Your task to perform on an android device: Search for the best rated kitchen reno kits on Lowes.com Image 0: 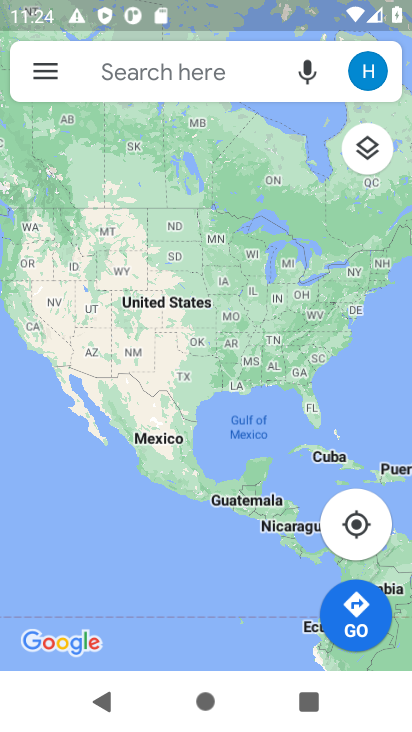
Step 0: press home button
Your task to perform on an android device: Search for the best rated kitchen reno kits on Lowes.com Image 1: 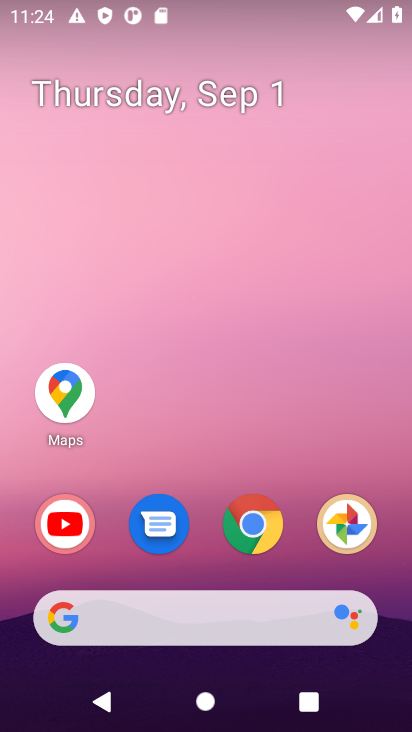
Step 1: click (253, 519)
Your task to perform on an android device: Search for the best rated kitchen reno kits on Lowes.com Image 2: 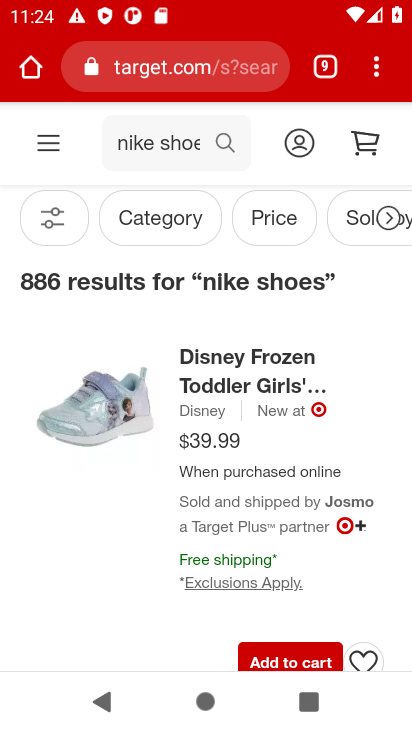
Step 2: click (325, 68)
Your task to perform on an android device: Search for the best rated kitchen reno kits on Lowes.com Image 3: 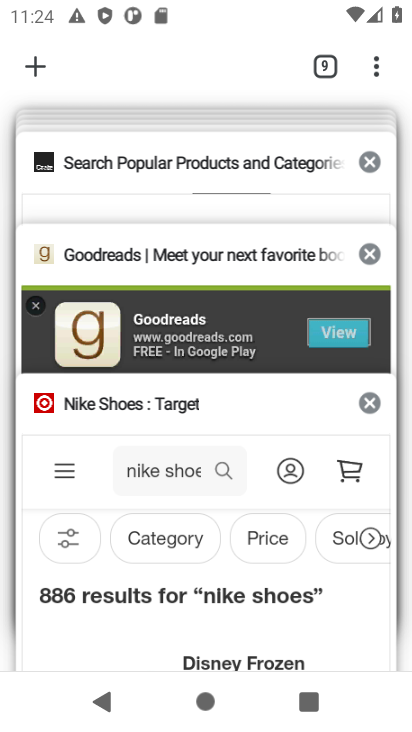
Step 3: click (34, 65)
Your task to perform on an android device: Search for the best rated kitchen reno kits on Lowes.com Image 4: 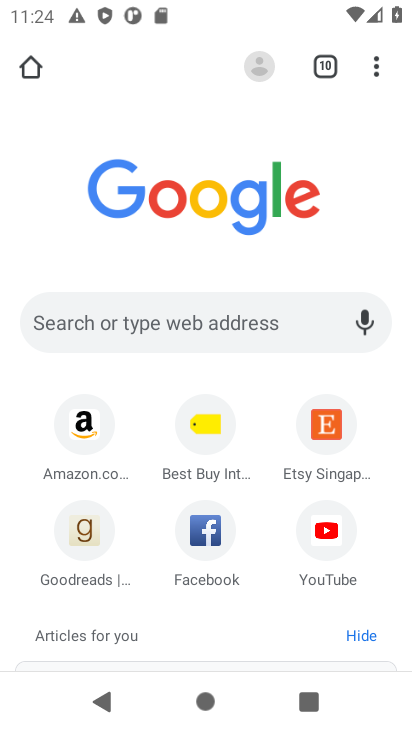
Step 4: click (173, 320)
Your task to perform on an android device: Search for the best rated kitchen reno kits on Lowes.com Image 5: 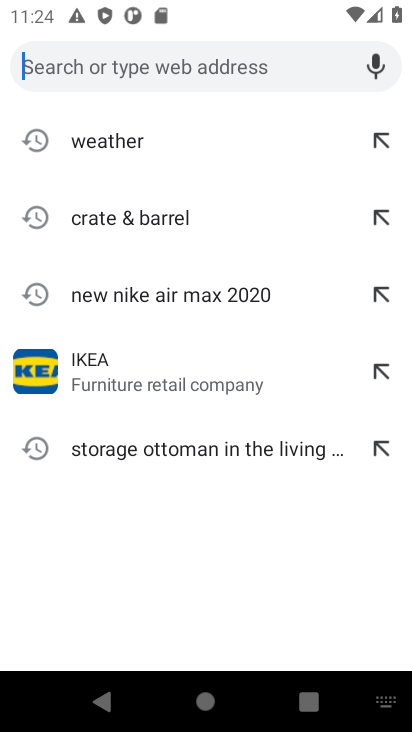
Step 5: type "Lowes.com"
Your task to perform on an android device: Search for the best rated kitchen reno kits on Lowes.com Image 6: 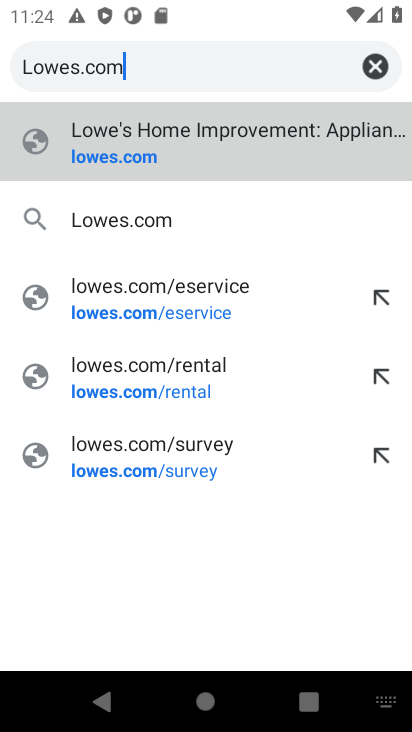
Step 6: click (66, 141)
Your task to perform on an android device: Search for the best rated kitchen reno kits on Lowes.com Image 7: 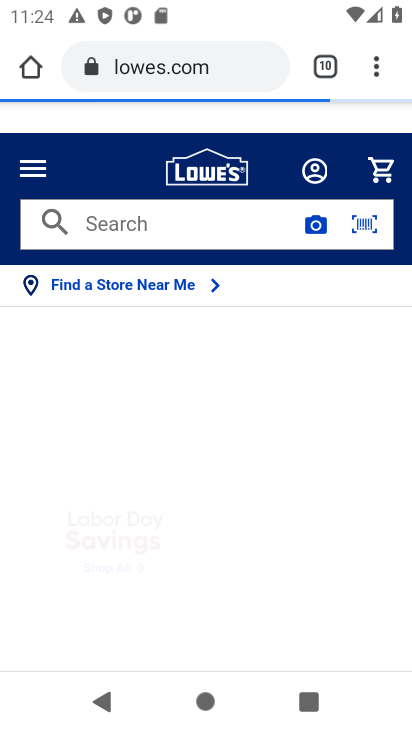
Step 7: click (99, 228)
Your task to perform on an android device: Search for the best rated kitchen reno kits on Lowes.com Image 8: 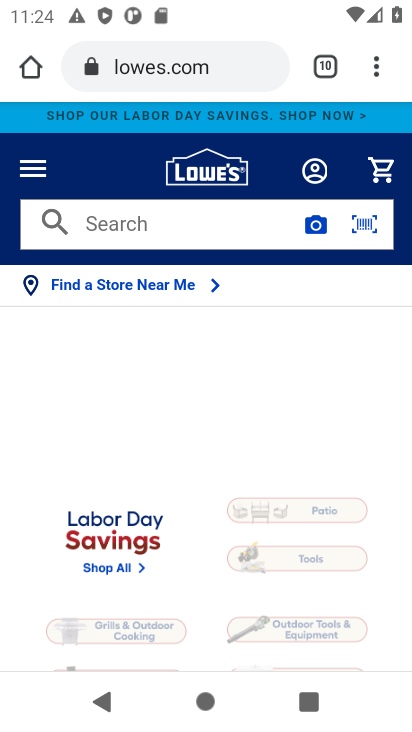
Step 8: click (99, 228)
Your task to perform on an android device: Search for the best rated kitchen reno kits on Lowes.com Image 9: 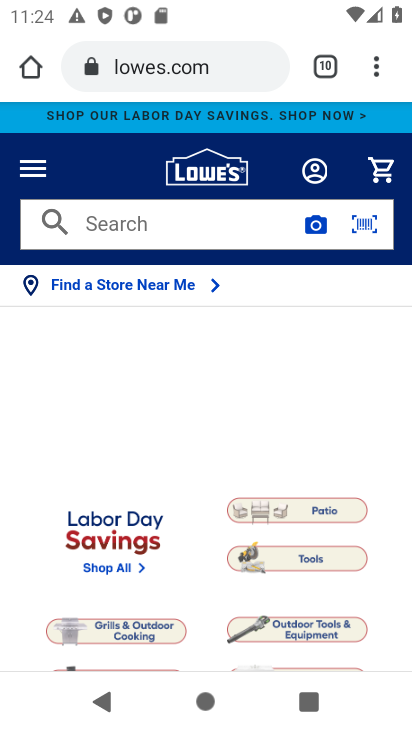
Step 9: click (99, 228)
Your task to perform on an android device: Search for the best rated kitchen reno kits on Lowes.com Image 10: 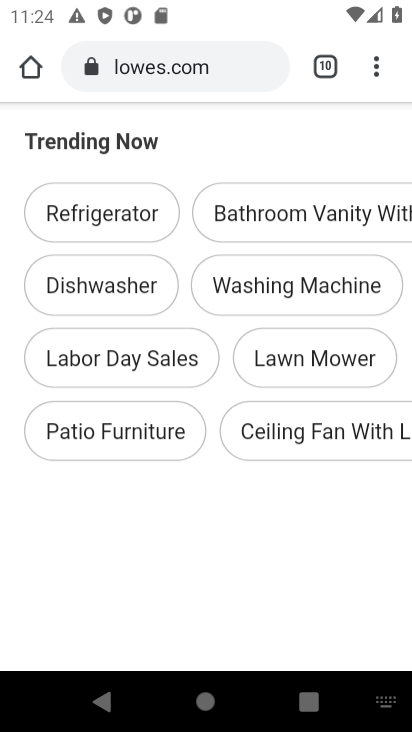
Step 10: press back button
Your task to perform on an android device: Search for the best rated kitchen reno kits on Lowes.com Image 11: 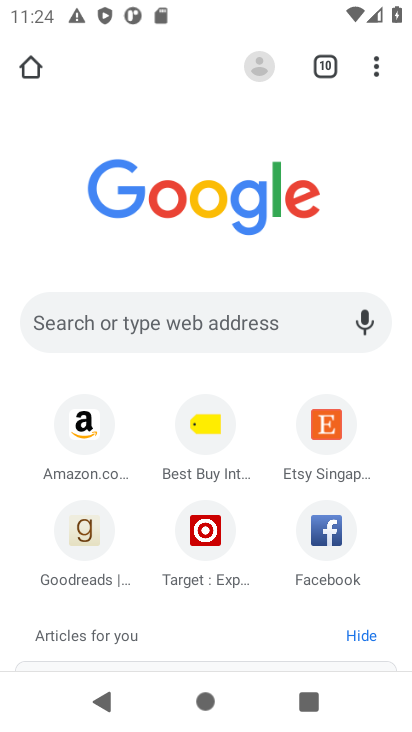
Step 11: click (206, 334)
Your task to perform on an android device: Search for the best rated kitchen reno kits on Lowes.com Image 12: 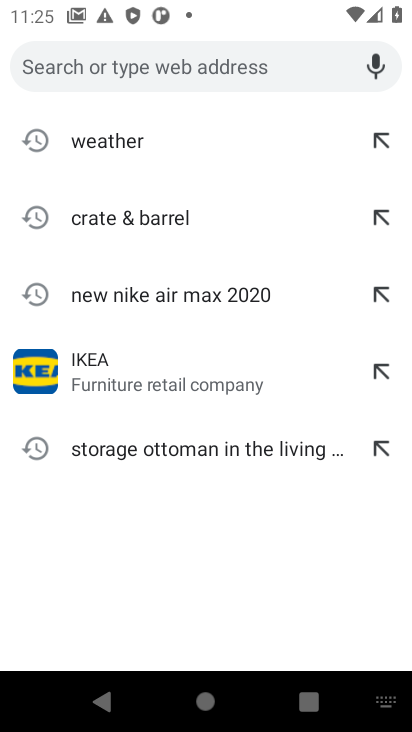
Step 12: type "Lowes.com"
Your task to perform on an android device: Search for the best rated kitchen reno kits on Lowes.com Image 13: 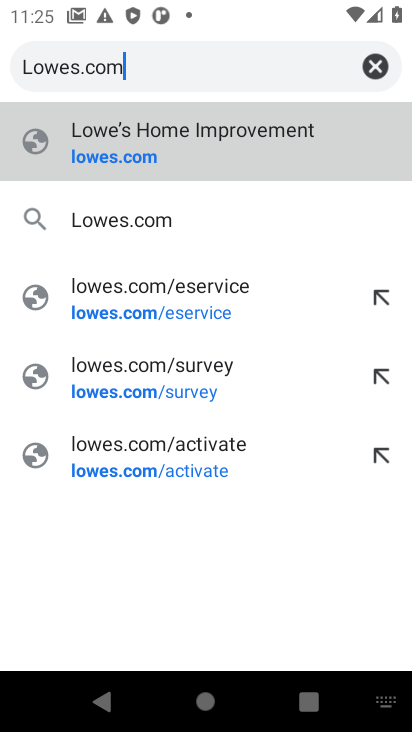
Step 13: click (226, 140)
Your task to perform on an android device: Search for the best rated kitchen reno kits on Lowes.com Image 14: 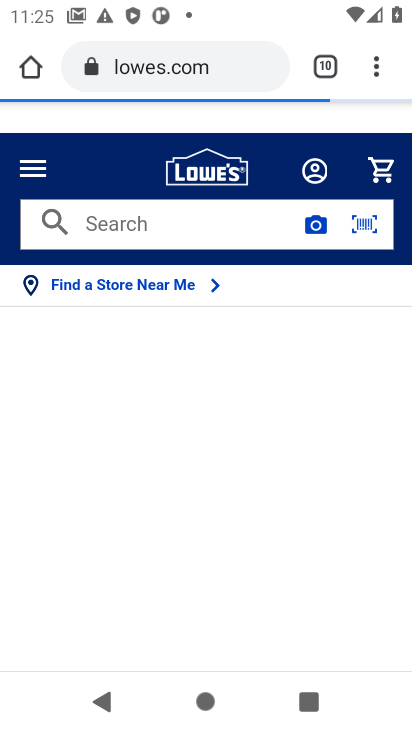
Step 14: click (67, 219)
Your task to perform on an android device: Search for the best rated kitchen reno kits on Lowes.com Image 15: 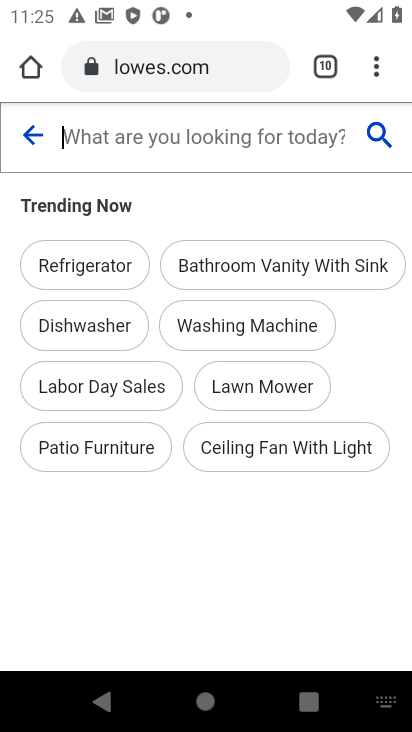
Step 15: type "best rated kitchen reno kits"
Your task to perform on an android device: Search for the best rated kitchen reno kits on Lowes.com Image 16: 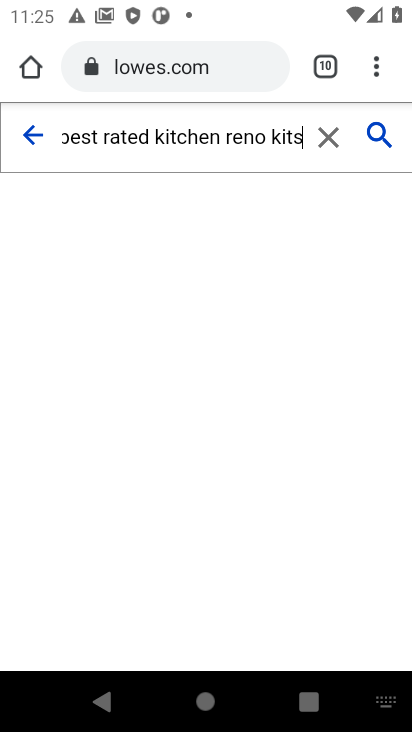
Step 16: click (378, 132)
Your task to perform on an android device: Search for the best rated kitchen reno kits on Lowes.com Image 17: 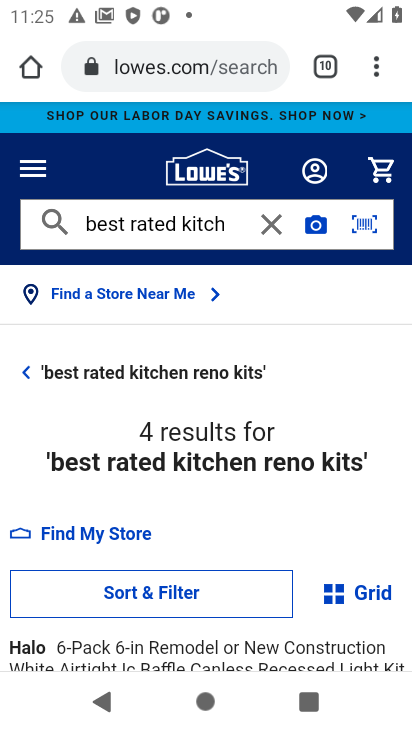
Step 17: task complete